Your task to perform on an android device: change the clock display to show seconds Image 0: 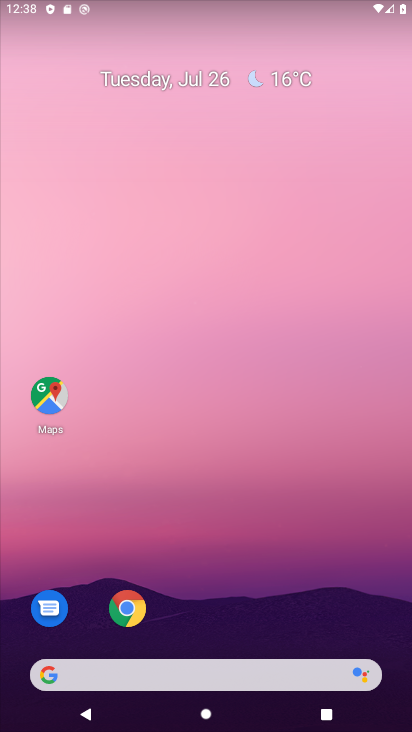
Step 0: task complete